Your task to perform on an android device: Open settings Image 0: 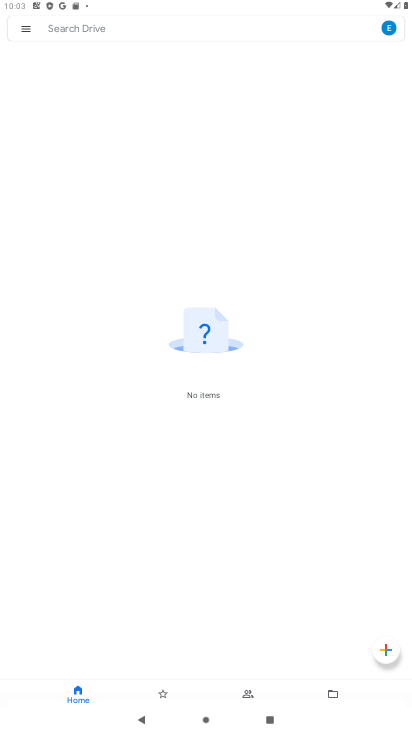
Step 0: press home button
Your task to perform on an android device: Open settings Image 1: 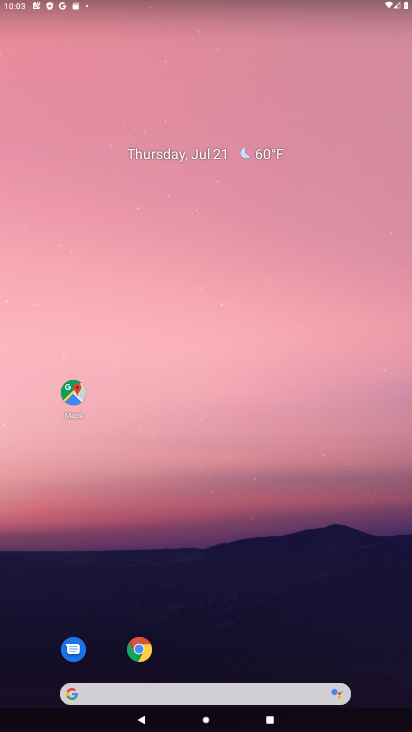
Step 1: drag from (178, 687) to (198, 151)
Your task to perform on an android device: Open settings Image 2: 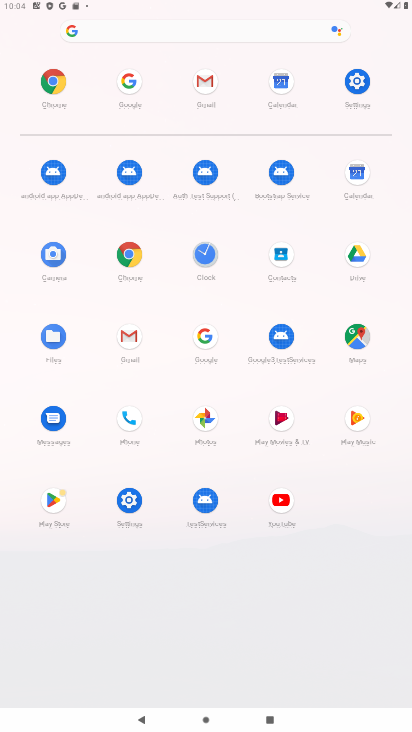
Step 2: click (354, 83)
Your task to perform on an android device: Open settings Image 3: 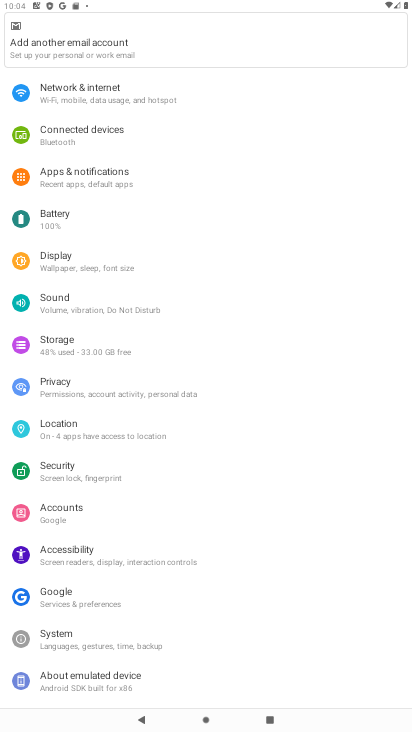
Step 3: task complete